Your task to perform on an android device: empty trash in google photos Image 0: 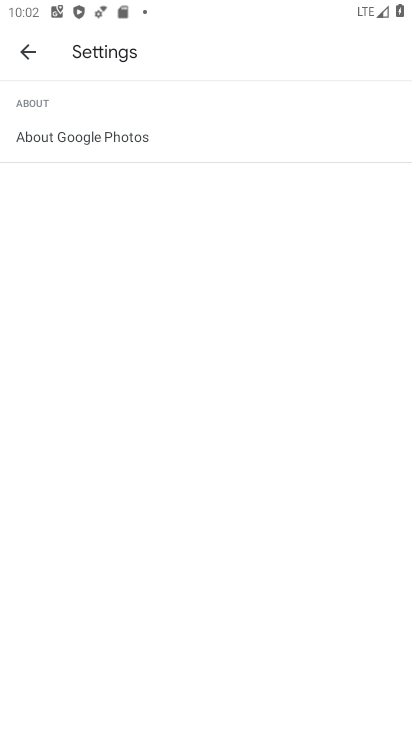
Step 0: press home button
Your task to perform on an android device: empty trash in google photos Image 1: 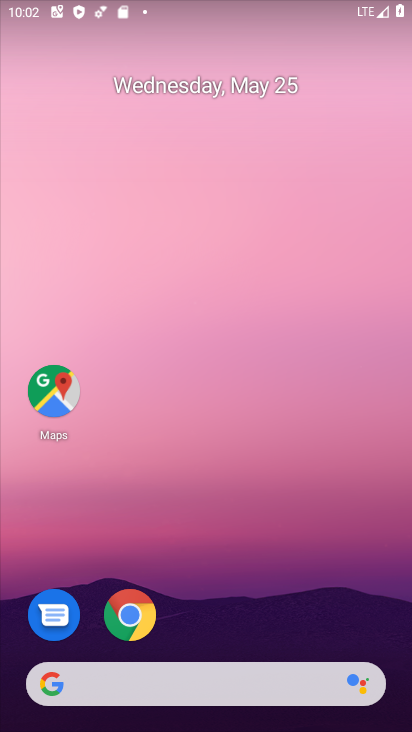
Step 1: drag from (235, 561) to (281, 33)
Your task to perform on an android device: empty trash in google photos Image 2: 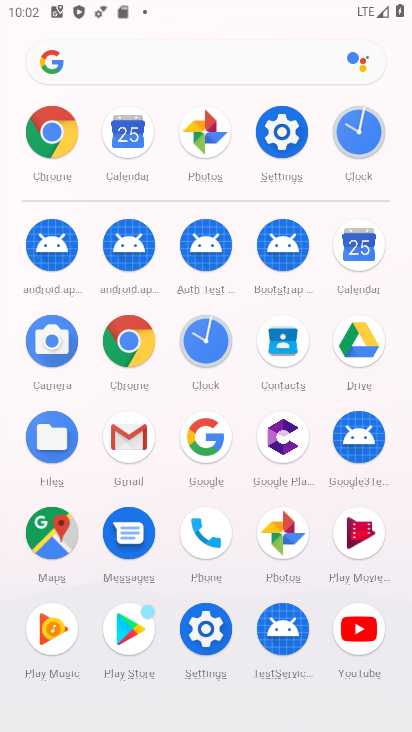
Step 2: click (212, 133)
Your task to perform on an android device: empty trash in google photos Image 3: 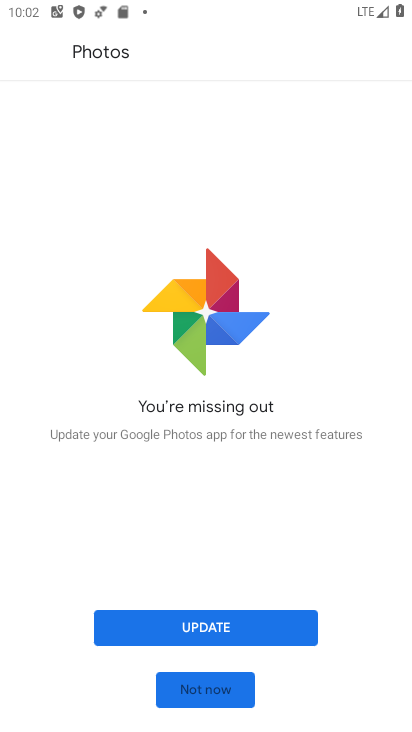
Step 3: click (205, 689)
Your task to perform on an android device: empty trash in google photos Image 4: 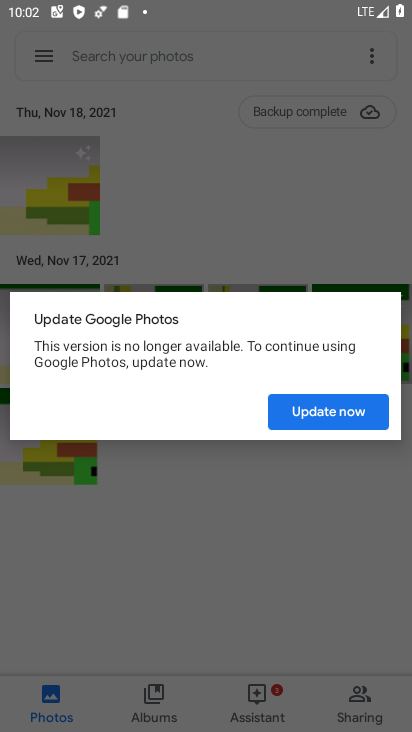
Step 4: click (329, 413)
Your task to perform on an android device: empty trash in google photos Image 5: 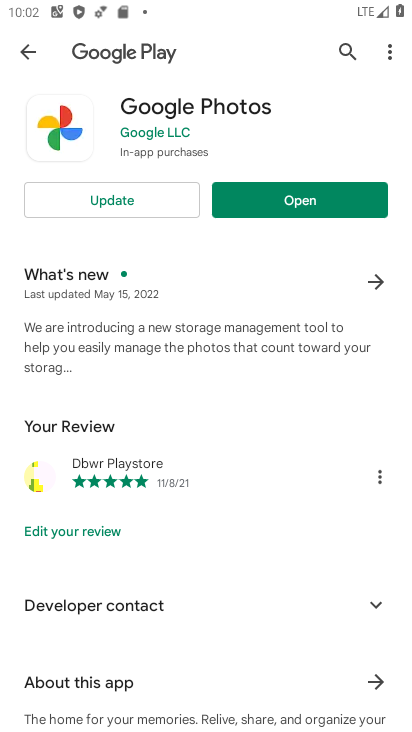
Step 5: click (328, 204)
Your task to perform on an android device: empty trash in google photos Image 6: 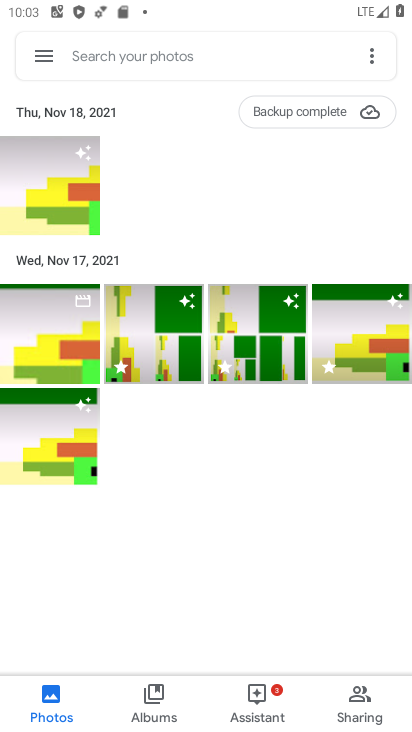
Step 6: click (42, 51)
Your task to perform on an android device: empty trash in google photos Image 7: 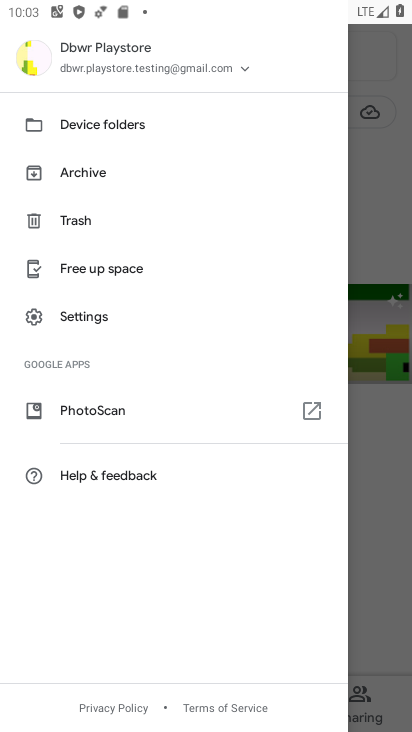
Step 7: click (98, 216)
Your task to perform on an android device: empty trash in google photos Image 8: 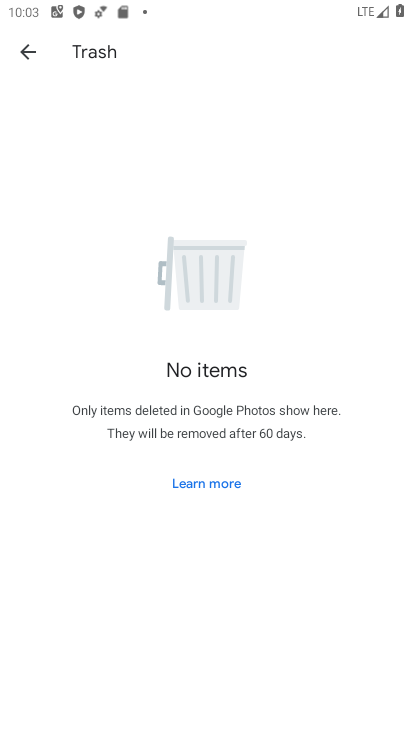
Step 8: task complete